Your task to perform on an android device: turn on improve location accuracy Image 0: 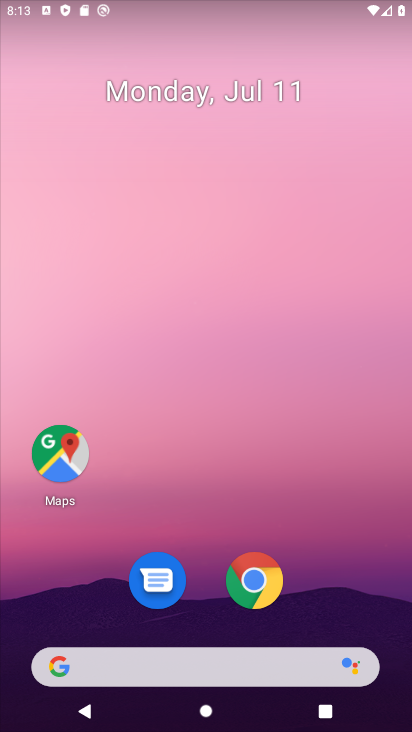
Step 0: drag from (337, 570) to (337, 59)
Your task to perform on an android device: turn on improve location accuracy Image 1: 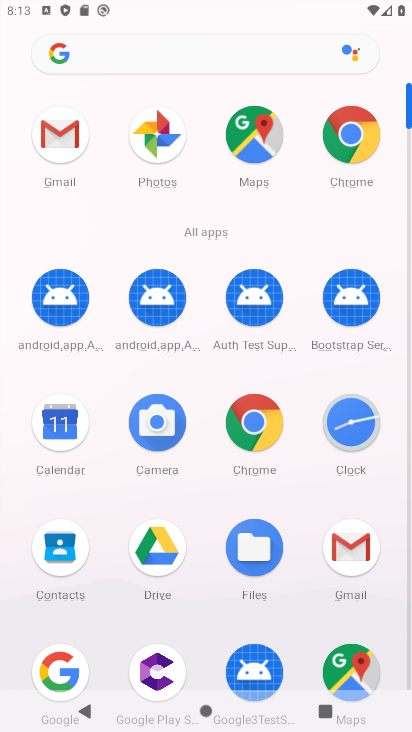
Step 1: drag from (332, 140) to (330, 16)
Your task to perform on an android device: turn on improve location accuracy Image 2: 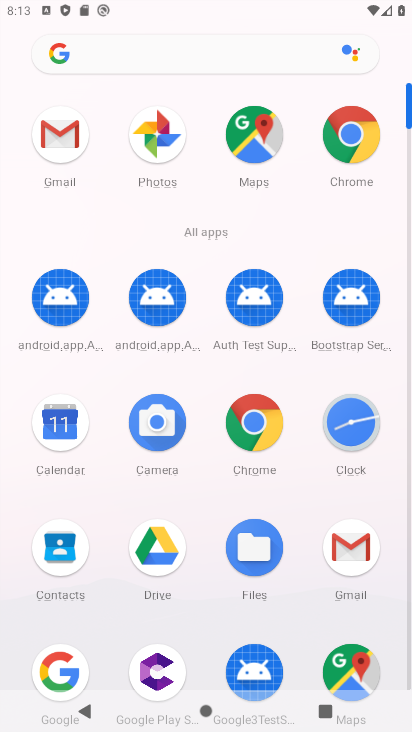
Step 2: drag from (201, 450) to (218, 66)
Your task to perform on an android device: turn on improve location accuracy Image 3: 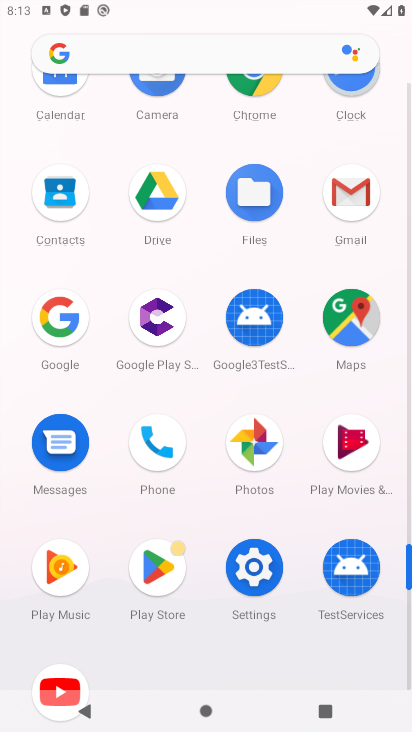
Step 3: click (251, 567)
Your task to perform on an android device: turn on improve location accuracy Image 4: 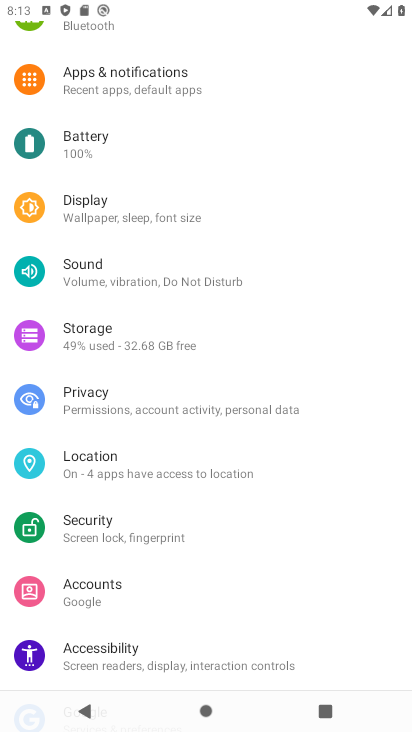
Step 4: click (221, 457)
Your task to perform on an android device: turn on improve location accuracy Image 5: 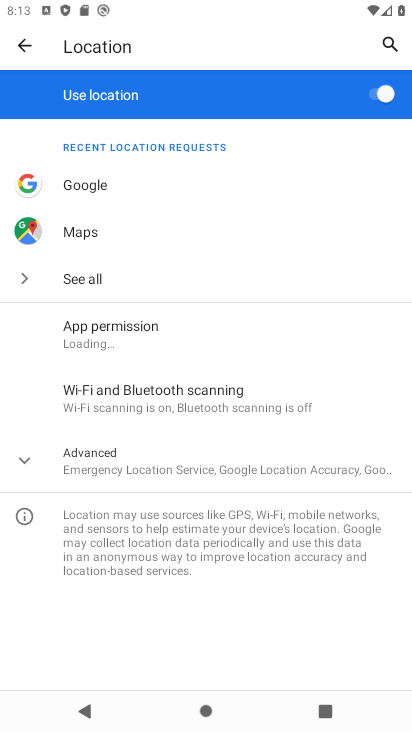
Step 5: click (27, 458)
Your task to perform on an android device: turn on improve location accuracy Image 6: 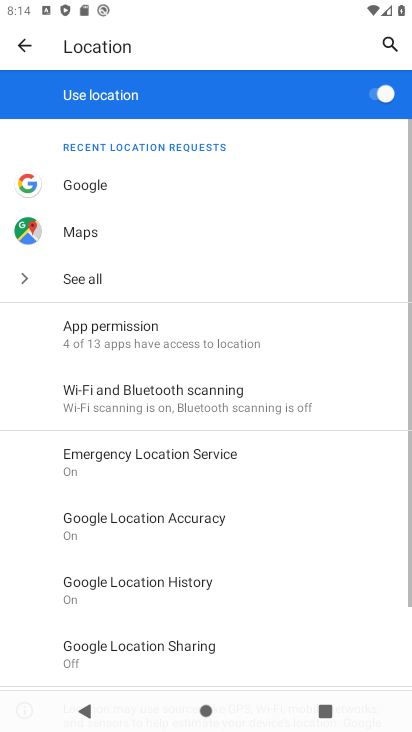
Step 6: click (131, 518)
Your task to perform on an android device: turn on improve location accuracy Image 7: 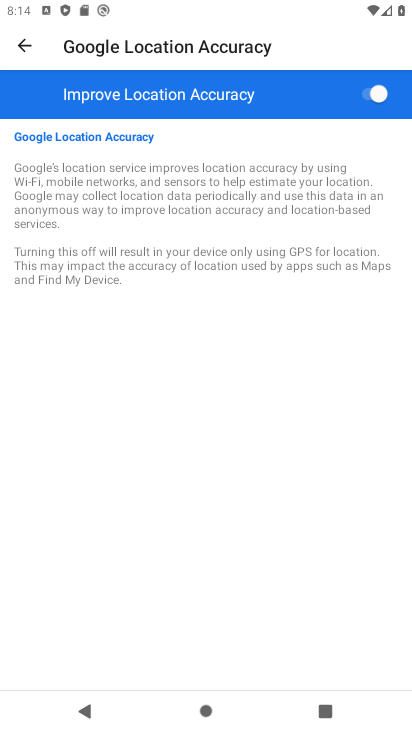
Step 7: task complete